Your task to perform on an android device: add a contact Image 0: 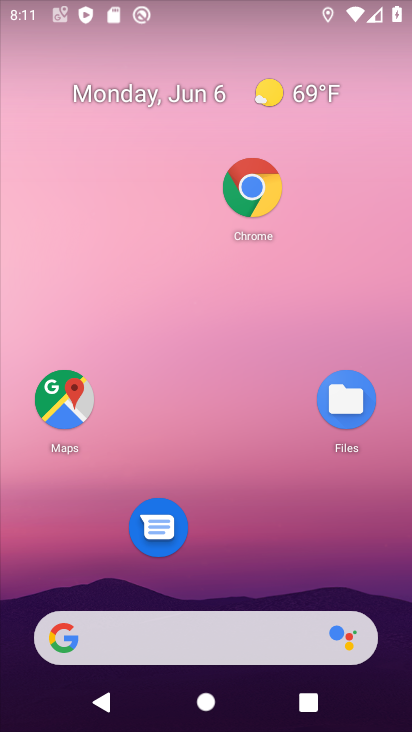
Step 0: drag from (251, 563) to (377, 59)
Your task to perform on an android device: add a contact Image 1: 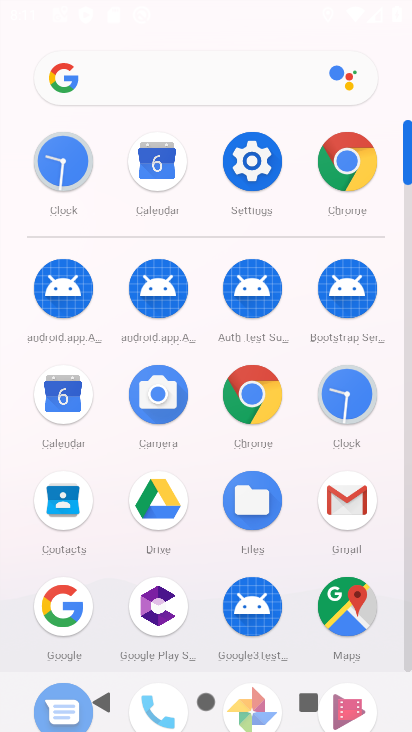
Step 1: click (61, 515)
Your task to perform on an android device: add a contact Image 2: 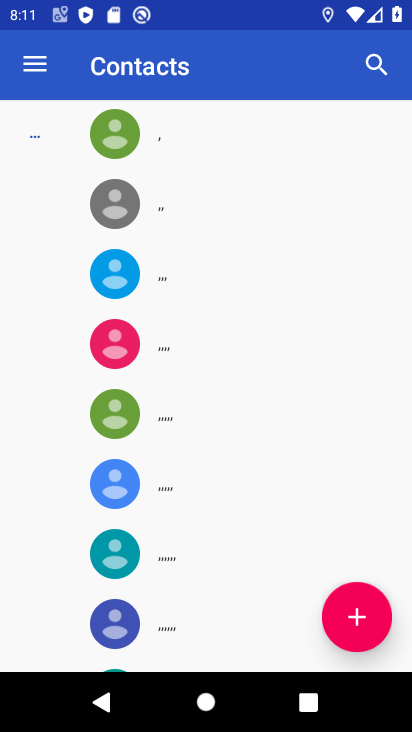
Step 2: click (349, 622)
Your task to perform on an android device: add a contact Image 3: 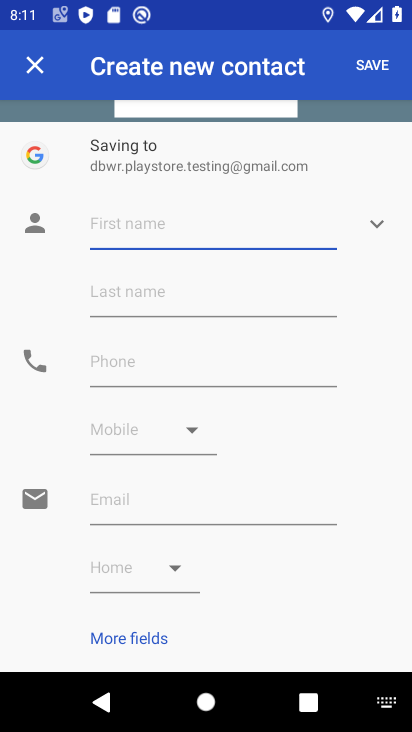
Step 3: type "ugvv"
Your task to perform on an android device: add a contact Image 4: 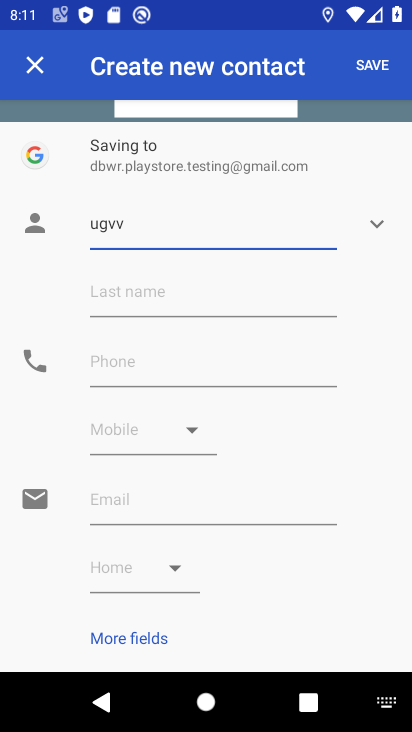
Step 4: click (374, 59)
Your task to perform on an android device: add a contact Image 5: 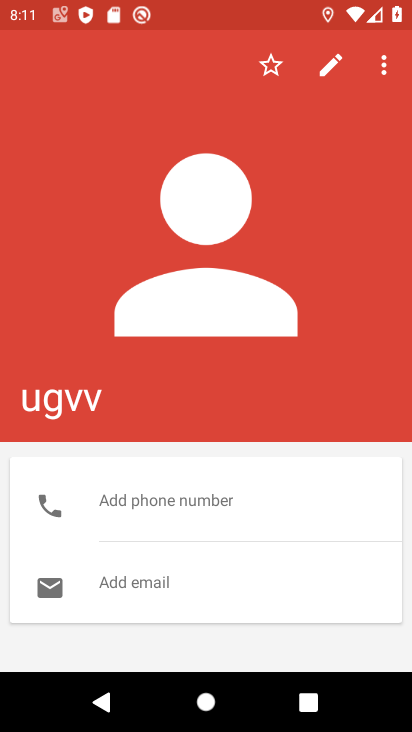
Step 5: task complete